Your task to perform on an android device: Show me the alarms in the clock app Image 0: 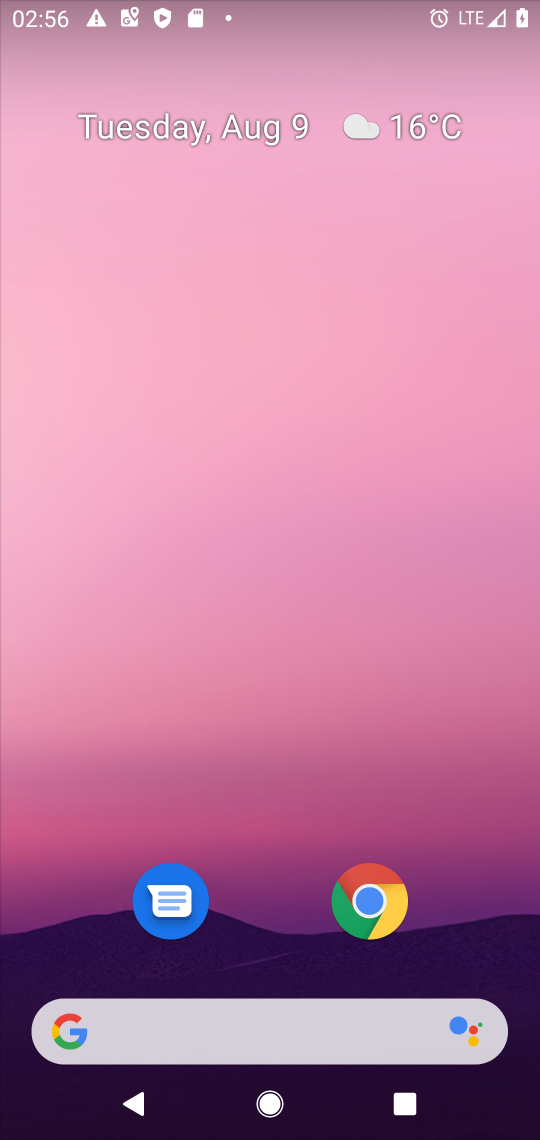
Step 0: drag from (483, 946) to (459, 222)
Your task to perform on an android device: Show me the alarms in the clock app Image 1: 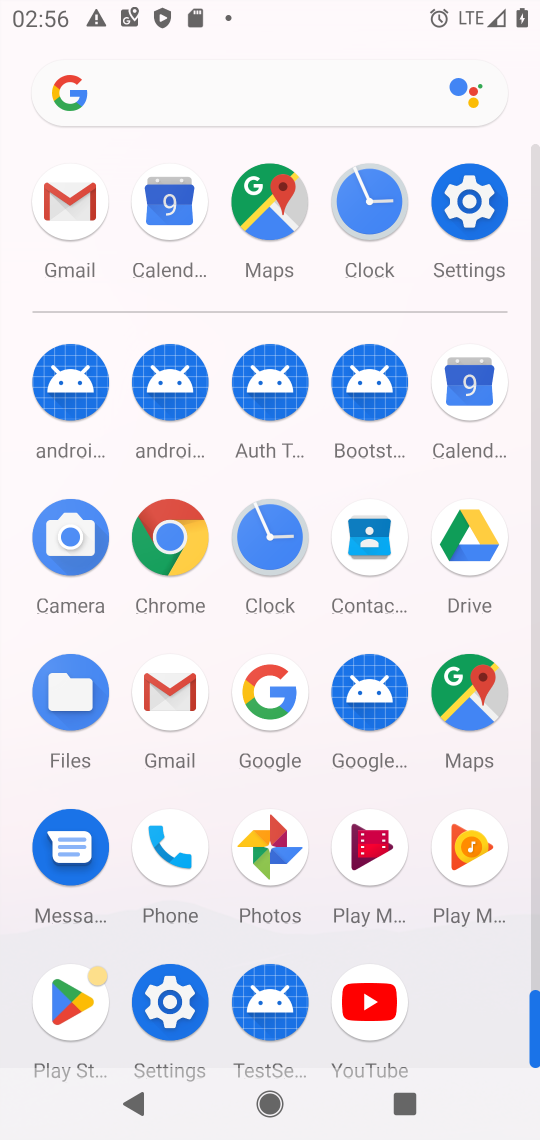
Step 1: click (269, 536)
Your task to perform on an android device: Show me the alarms in the clock app Image 2: 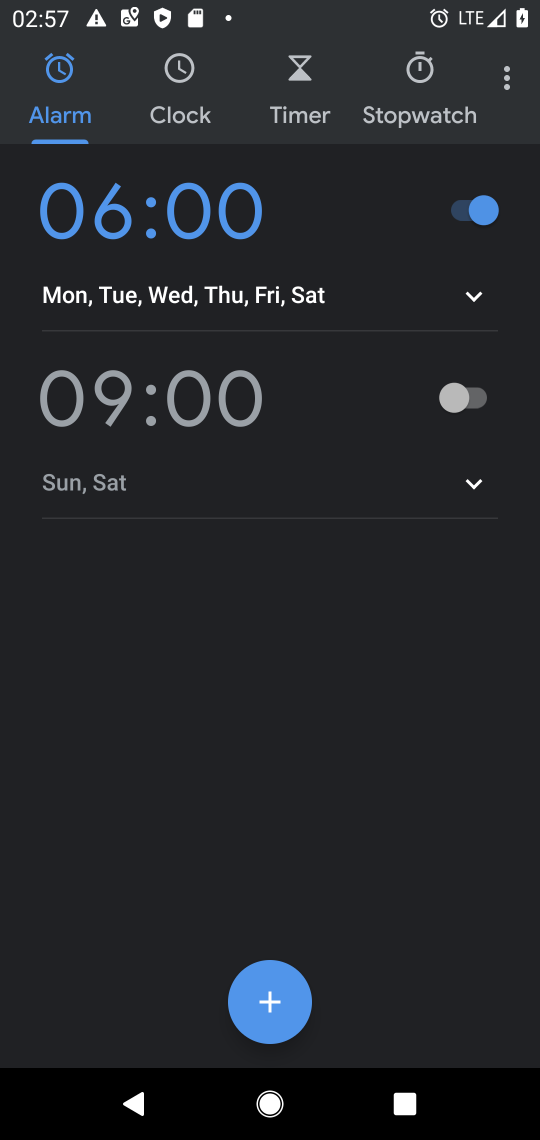
Step 2: task complete